Your task to perform on an android device: set an alarm Image 0: 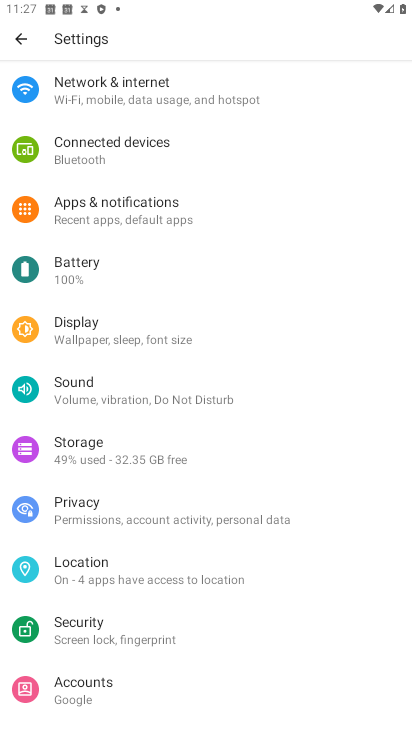
Step 0: drag from (251, 180) to (319, 609)
Your task to perform on an android device: set an alarm Image 1: 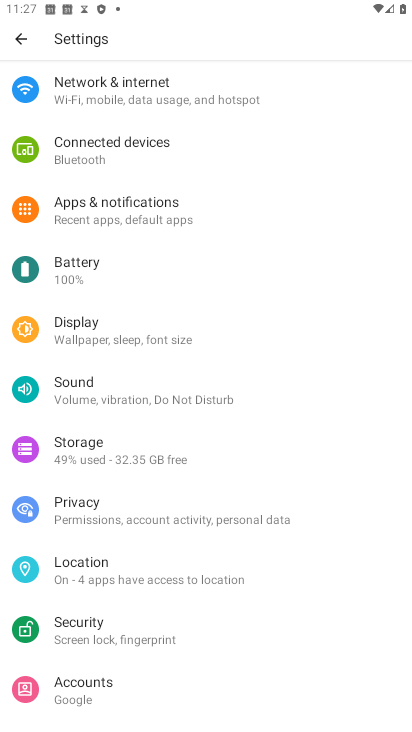
Step 1: drag from (220, 624) to (268, 265)
Your task to perform on an android device: set an alarm Image 2: 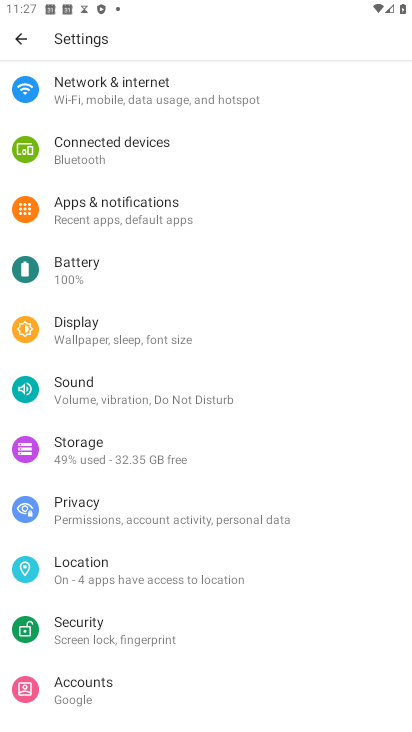
Step 2: drag from (178, 184) to (259, 685)
Your task to perform on an android device: set an alarm Image 3: 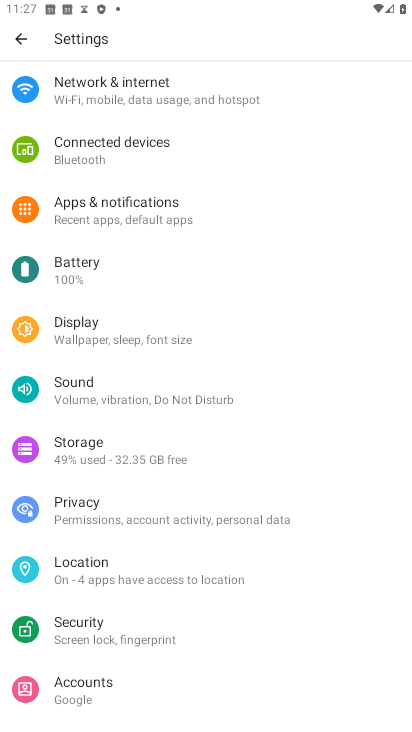
Step 3: press home button
Your task to perform on an android device: set an alarm Image 4: 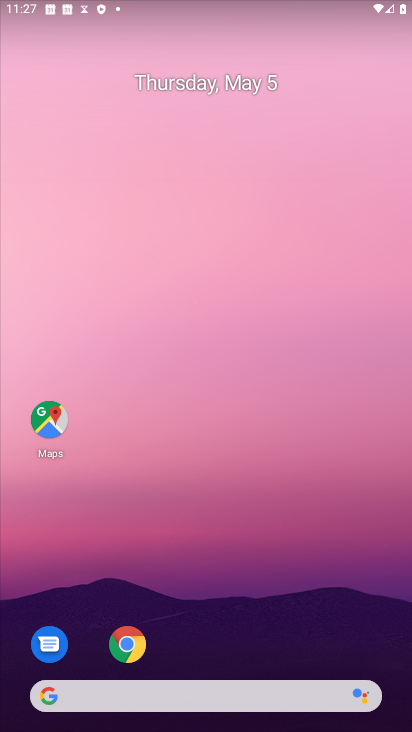
Step 4: drag from (217, 598) to (320, 99)
Your task to perform on an android device: set an alarm Image 5: 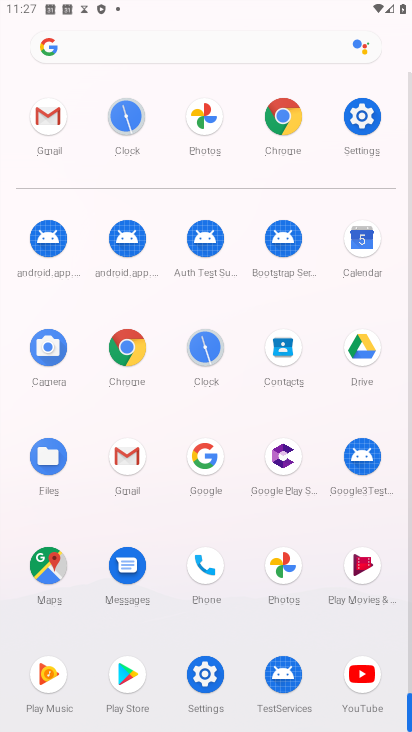
Step 5: click (210, 340)
Your task to perform on an android device: set an alarm Image 6: 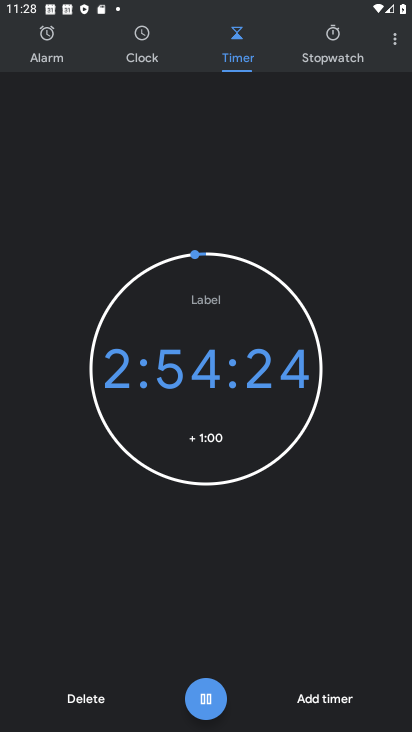
Step 6: click (82, 689)
Your task to perform on an android device: set an alarm Image 7: 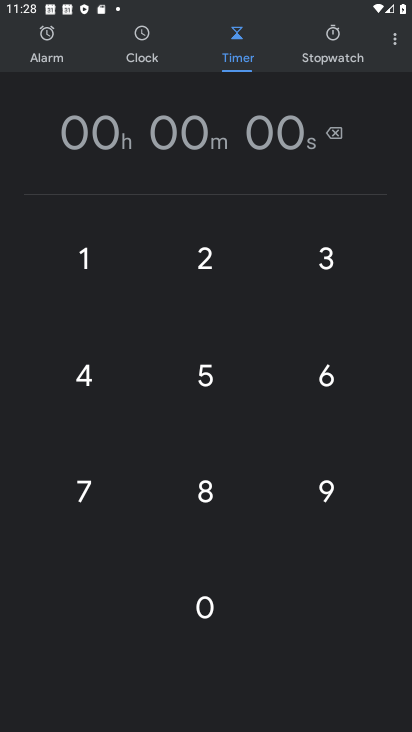
Step 7: click (50, 52)
Your task to perform on an android device: set an alarm Image 8: 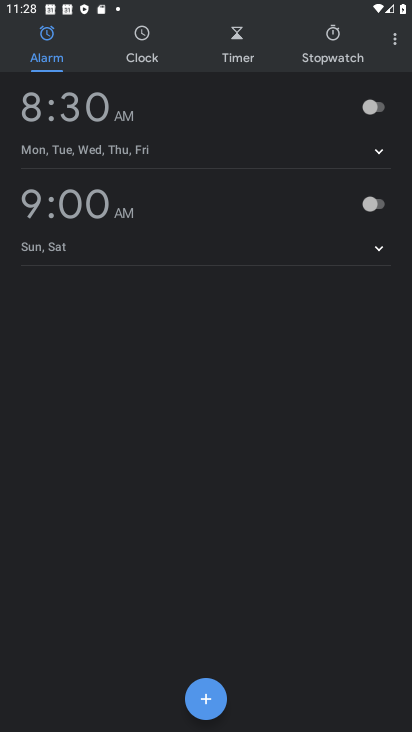
Step 8: click (372, 118)
Your task to perform on an android device: set an alarm Image 9: 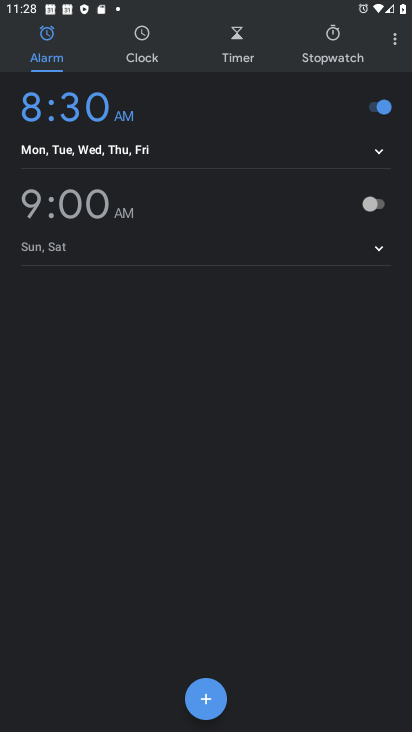
Step 9: click (246, 51)
Your task to perform on an android device: set an alarm Image 10: 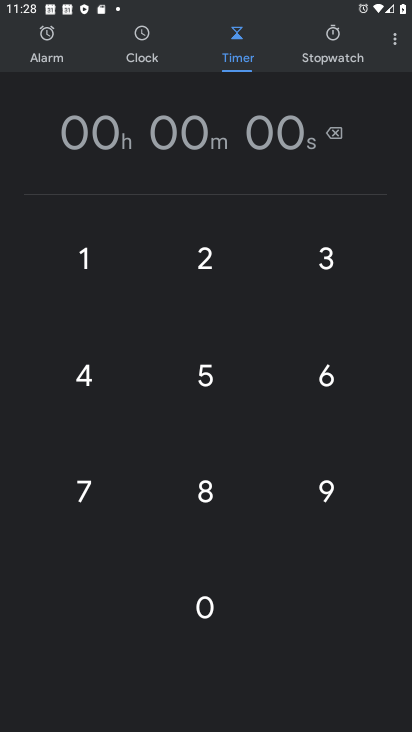
Step 10: click (131, 36)
Your task to perform on an android device: set an alarm Image 11: 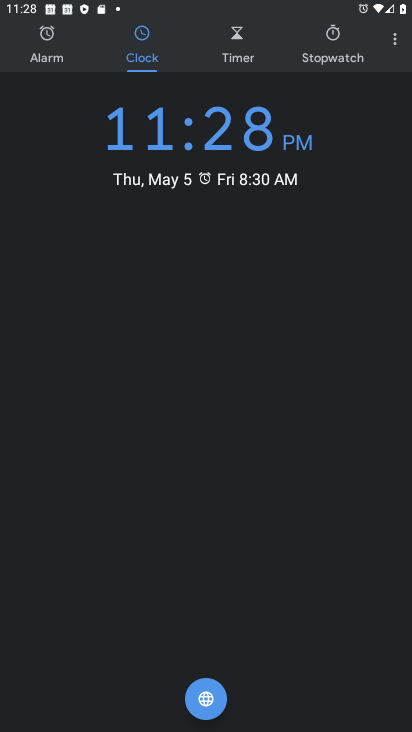
Step 11: click (57, 50)
Your task to perform on an android device: set an alarm Image 12: 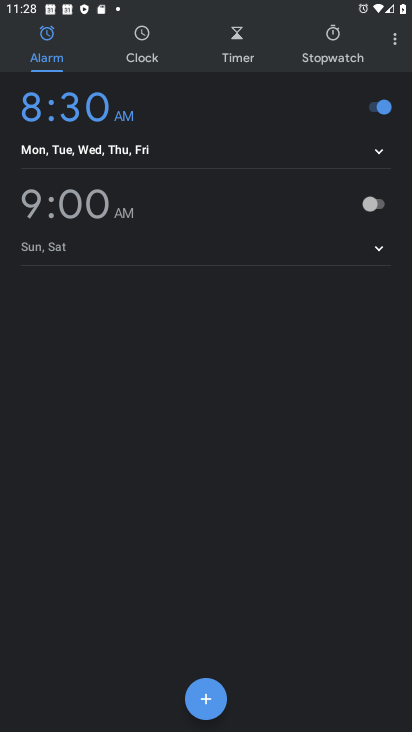
Step 12: task complete